Your task to perform on an android device: turn on translation in the chrome app Image 0: 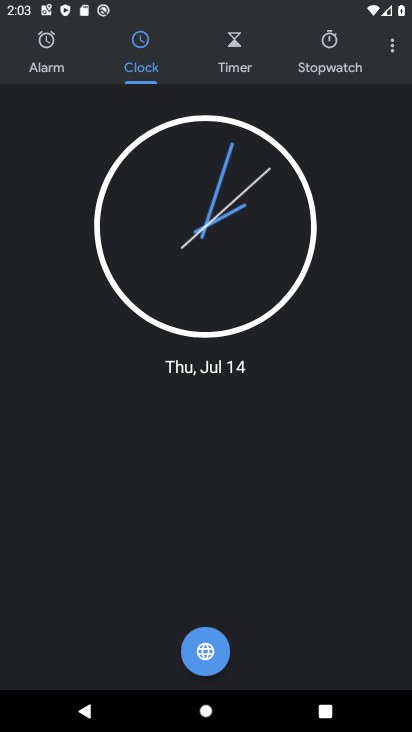
Step 0: press home button
Your task to perform on an android device: turn on translation in the chrome app Image 1: 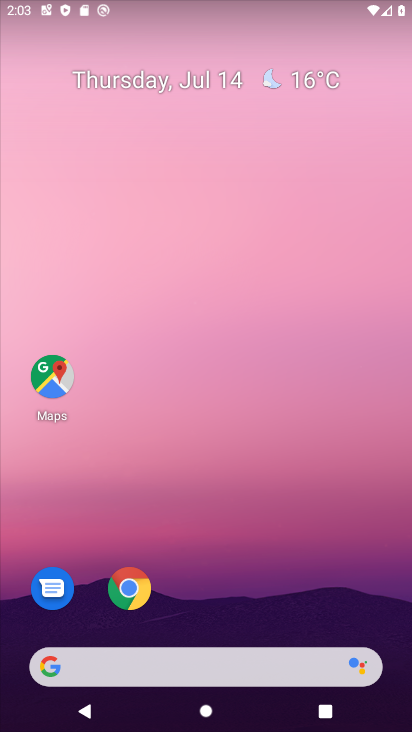
Step 1: click (132, 582)
Your task to perform on an android device: turn on translation in the chrome app Image 2: 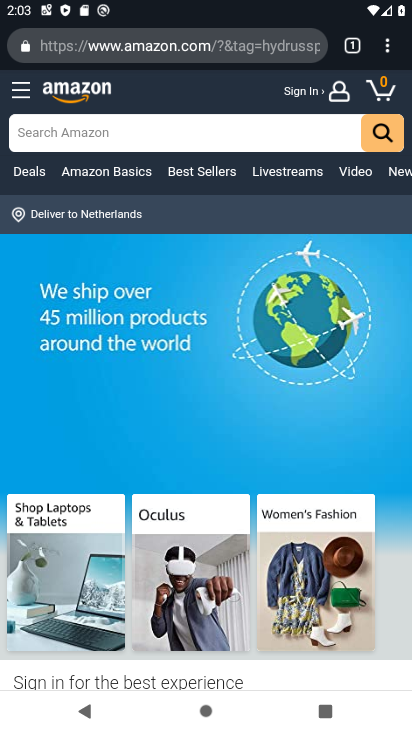
Step 2: click (383, 37)
Your task to perform on an android device: turn on translation in the chrome app Image 3: 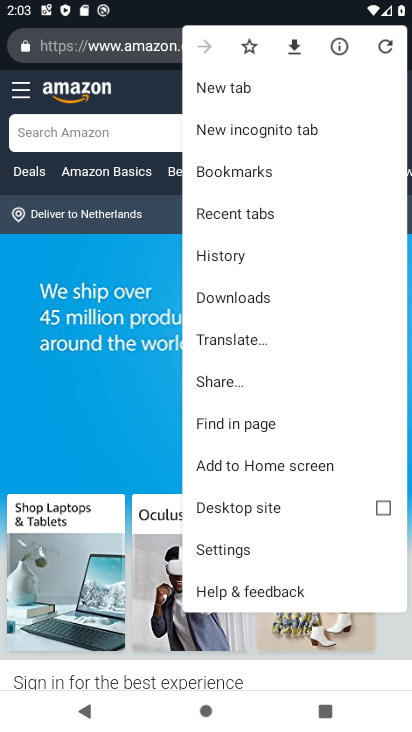
Step 3: click (252, 557)
Your task to perform on an android device: turn on translation in the chrome app Image 4: 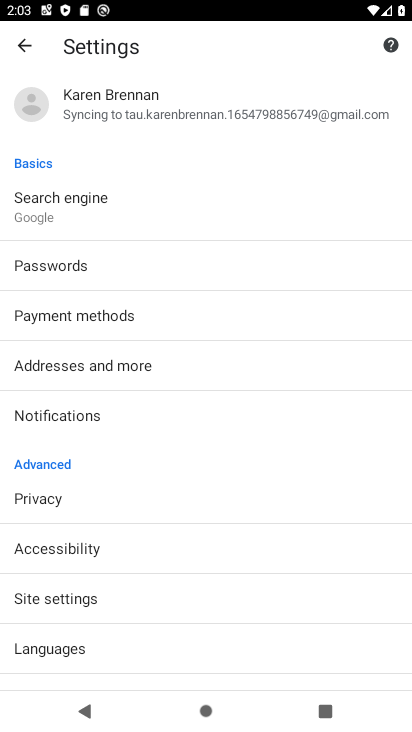
Step 4: click (135, 646)
Your task to perform on an android device: turn on translation in the chrome app Image 5: 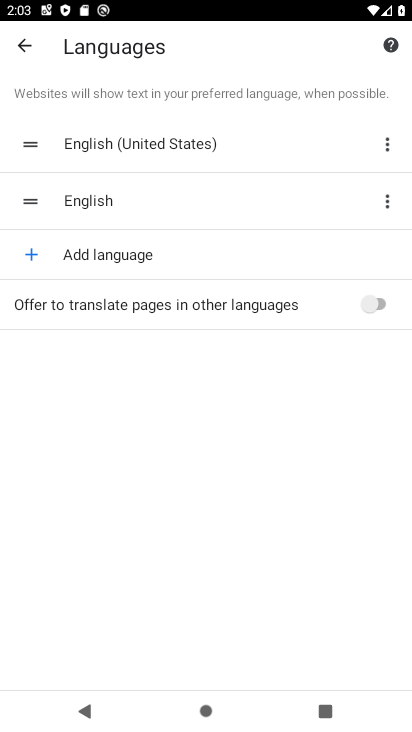
Step 5: click (387, 302)
Your task to perform on an android device: turn on translation in the chrome app Image 6: 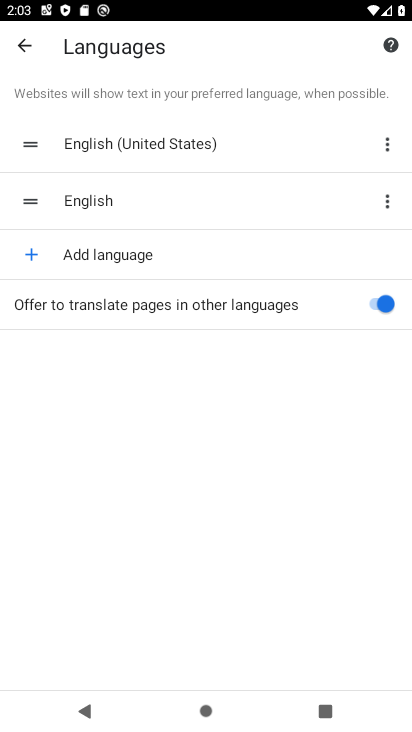
Step 6: task complete